Your task to perform on an android device: turn on the 24-hour format for clock Image 0: 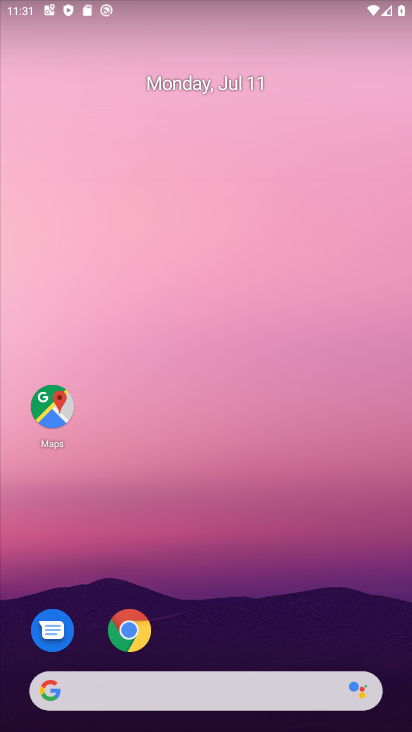
Step 0: drag from (221, 633) to (243, 160)
Your task to perform on an android device: turn on the 24-hour format for clock Image 1: 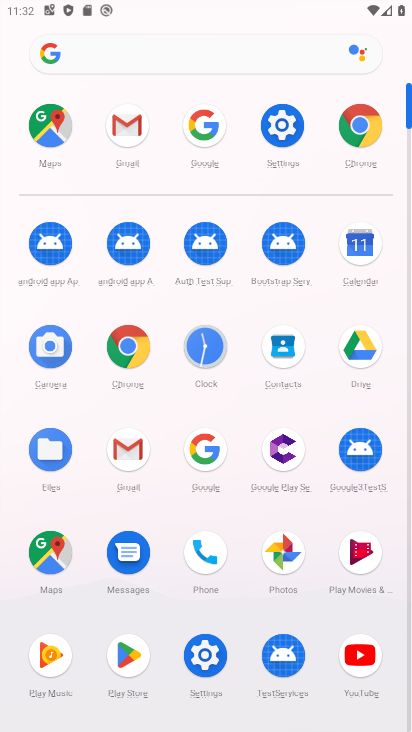
Step 1: click (206, 346)
Your task to perform on an android device: turn on the 24-hour format for clock Image 2: 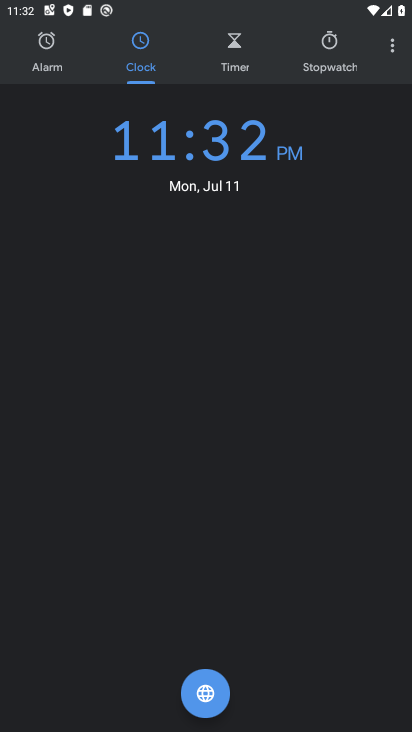
Step 2: click (391, 44)
Your task to perform on an android device: turn on the 24-hour format for clock Image 3: 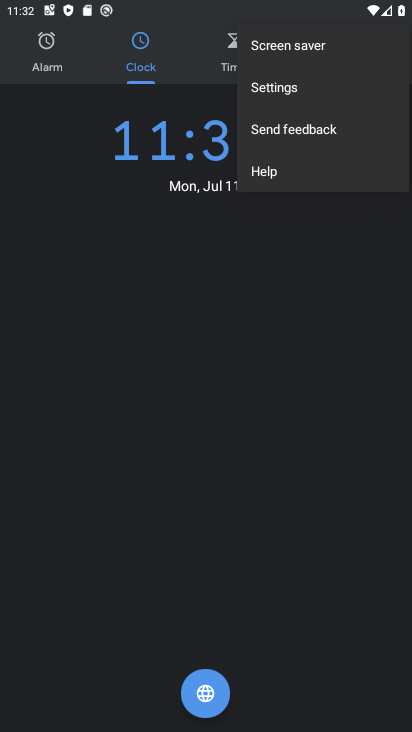
Step 3: click (295, 90)
Your task to perform on an android device: turn on the 24-hour format for clock Image 4: 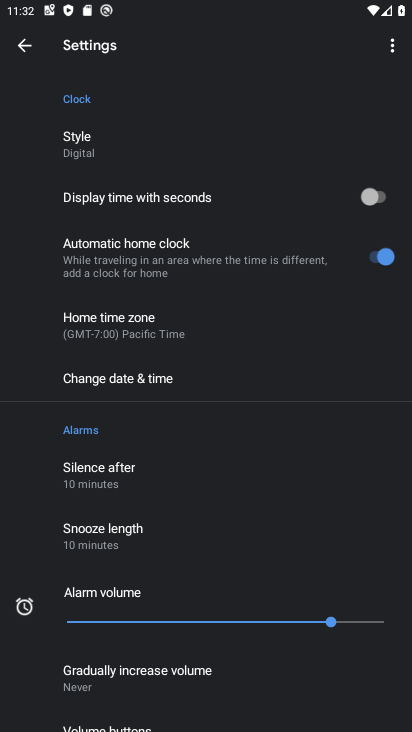
Step 4: click (148, 374)
Your task to perform on an android device: turn on the 24-hour format for clock Image 5: 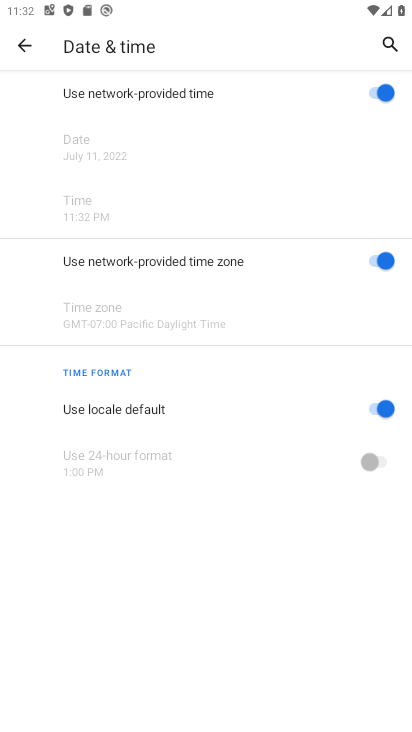
Step 5: click (376, 410)
Your task to perform on an android device: turn on the 24-hour format for clock Image 6: 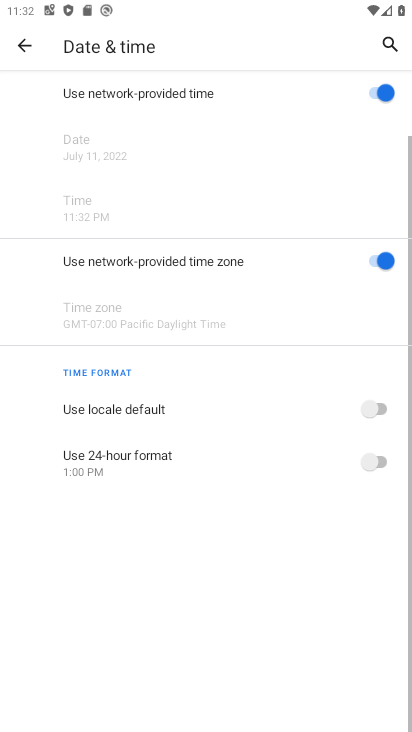
Step 6: click (372, 459)
Your task to perform on an android device: turn on the 24-hour format for clock Image 7: 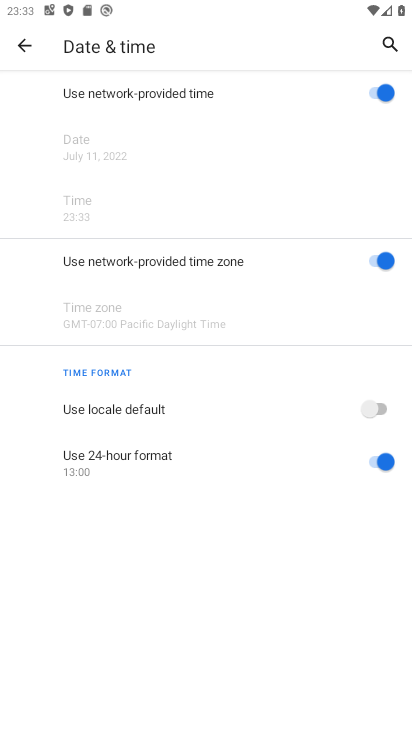
Step 7: task complete